Your task to perform on an android device: Open calendar and show me the second week of next month Image 0: 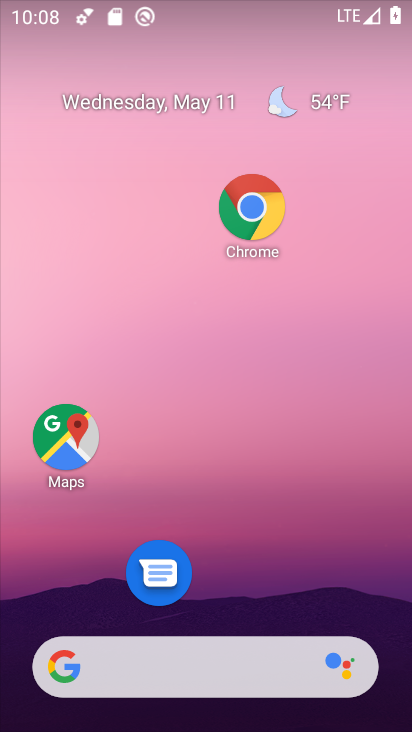
Step 0: drag from (268, 672) to (370, 43)
Your task to perform on an android device: Open calendar and show me the second week of next month Image 1: 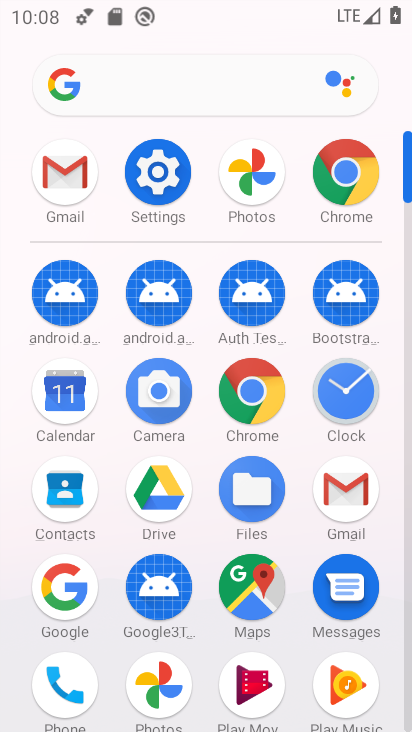
Step 1: click (86, 390)
Your task to perform on an android device: Open calendar and show me the second week of next month Image 2: 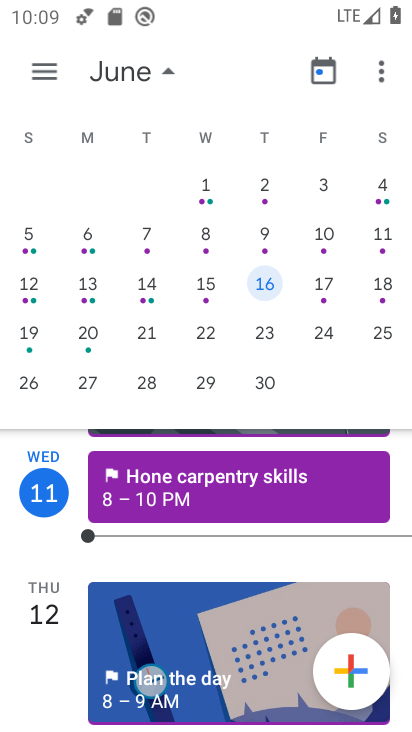
Step 2: click (261, 336)
Your task to perform on an android device: Open calendar and show me the second week of next month Image 3: 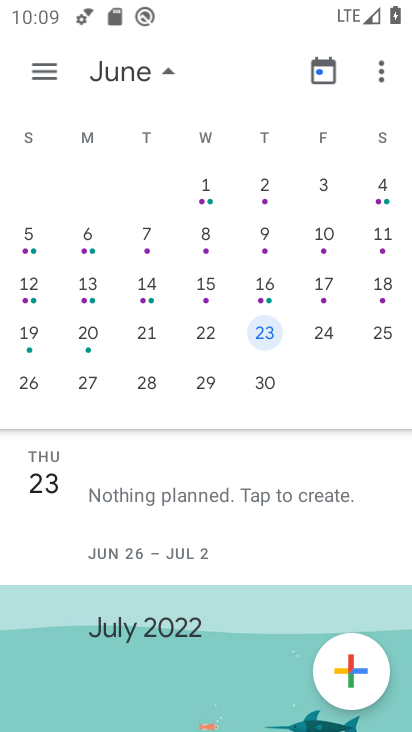
Step 3: task complete